Your task to perform on an android device: Open sound settings Image 0: 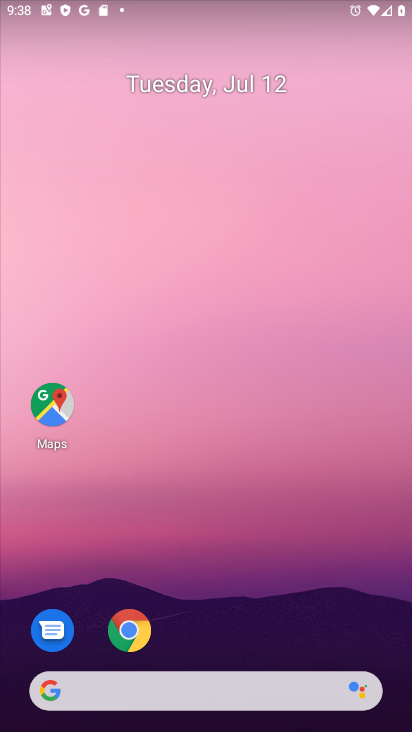
Step 0: drag from (206, 540) to (199, 129)
Your task to perform on an android device: Open sound settings Image 1: 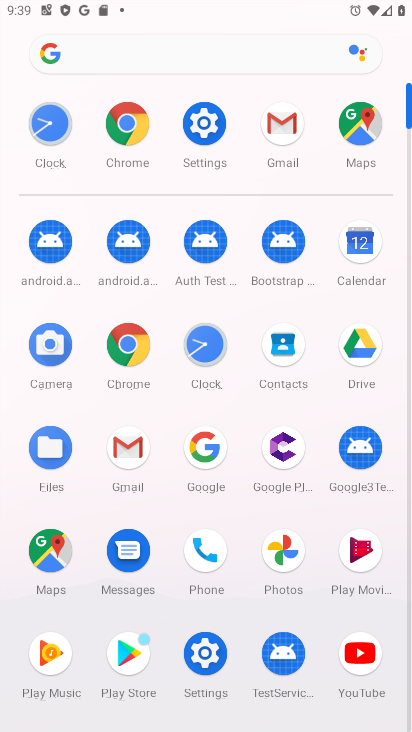
Step 1: click (201, 117)
Your task to perform on an android device: Open sound settings Image 2: 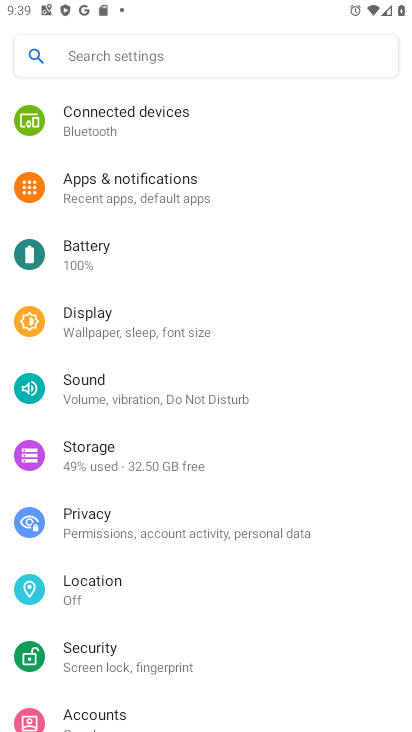
Step 2: click (127, 385)
Your task to perform on an android device: Open sound settings Image 3: 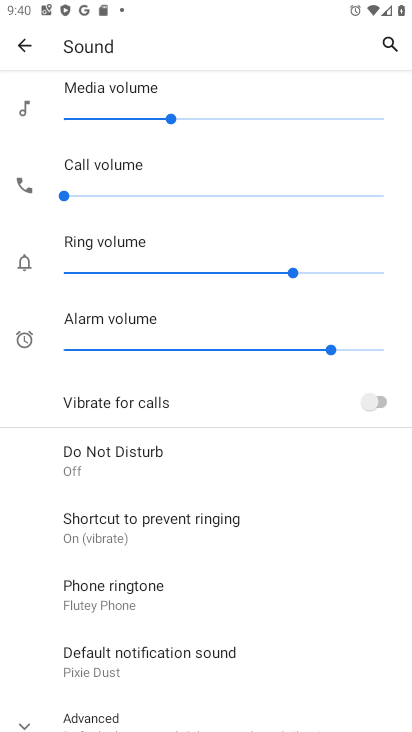
Step 3: task complete